Your task to perform on an android device: Go to settings Image 0: 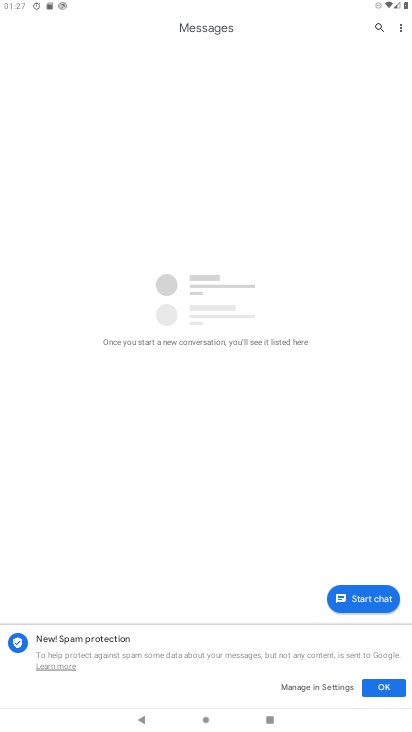
Step 0: press home button
Your task to perform on an android device: Go to settings Image 1: 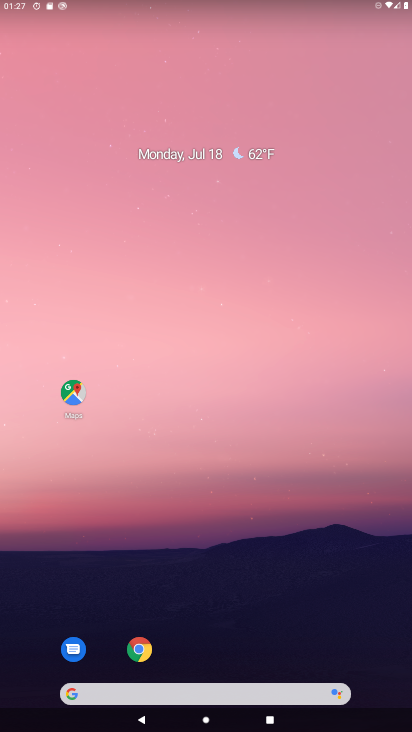
Step 1: drag from (16, 688) to (225, 46)
Your task to perform on an android device: Go to settings Image 2: 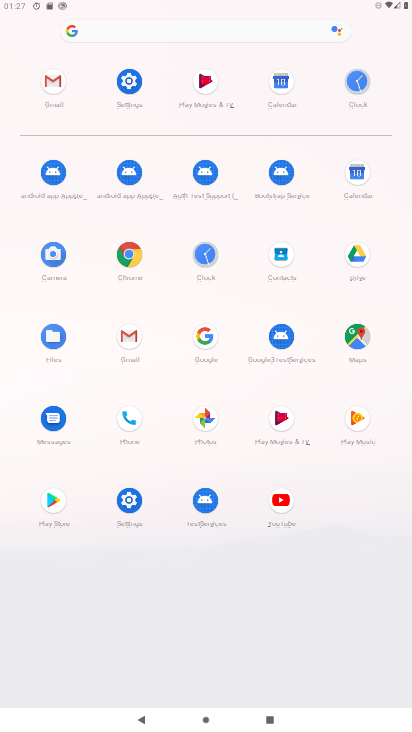
Step 2: click (120, 488)
Your task to perform on an android device: Go to settings Image 3: 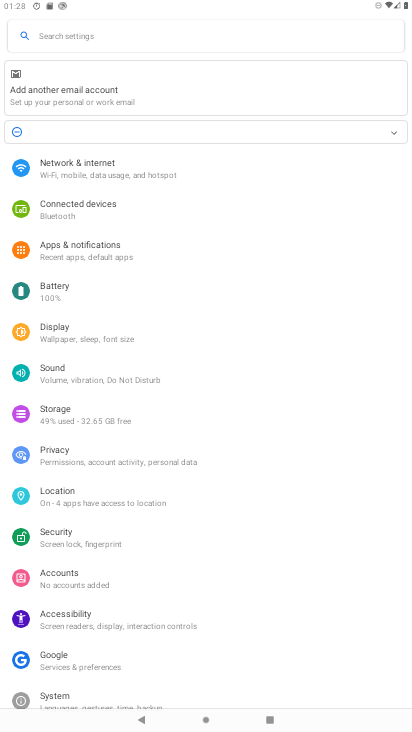
Step 3: task complete